Your task to perform on an android device: Open the calendar and show me this week's events? Image 0: 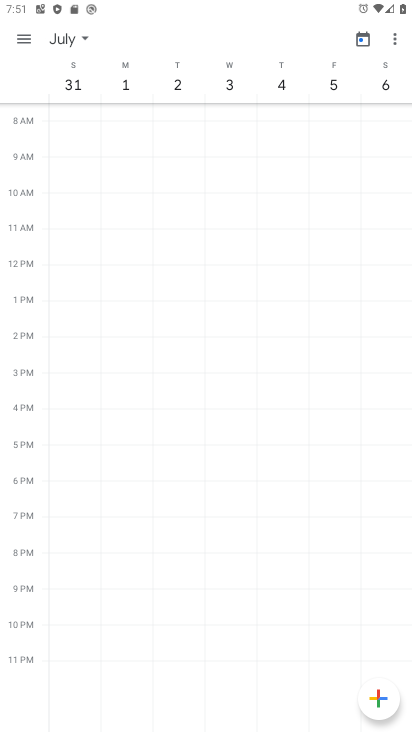
Step 0: drag from (83, 94) to (400, 102)
Your task to perform on an android device: Open the calendar and show me this week's events? Image 1: 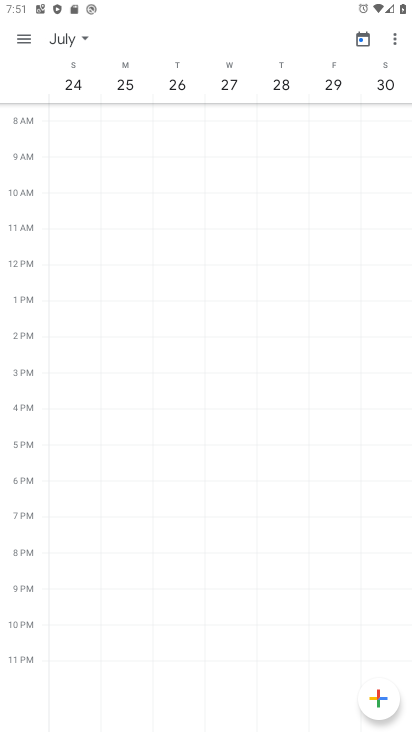
Step 1: task complete